Your task to perform on an android device: toggle improve location accuracy Image 0: 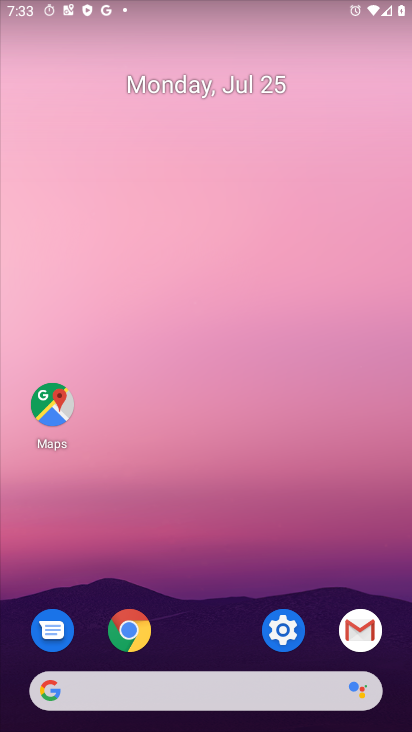
Step 0: click (278, 645)
Your task to perform on an android device: toggle improve location accuracy Image 1: 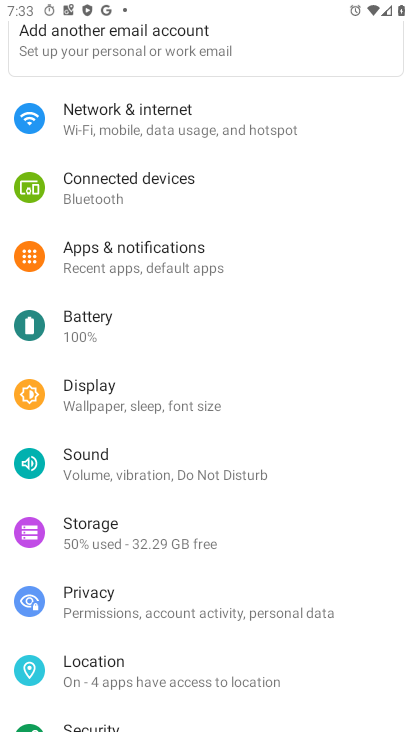
Step 1: click (117, 653)
Your task to perform on an android device: toggle improve location accuracy Image 2: 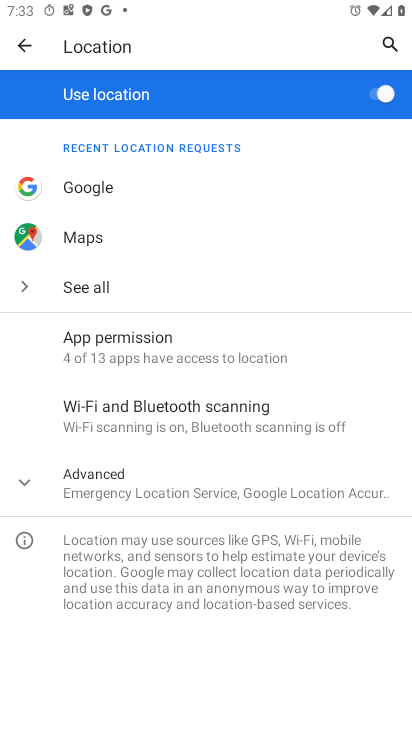
Step 2: click (16, 478)
Your task to perform on an android device: toggle improve location accuracy Image 3: 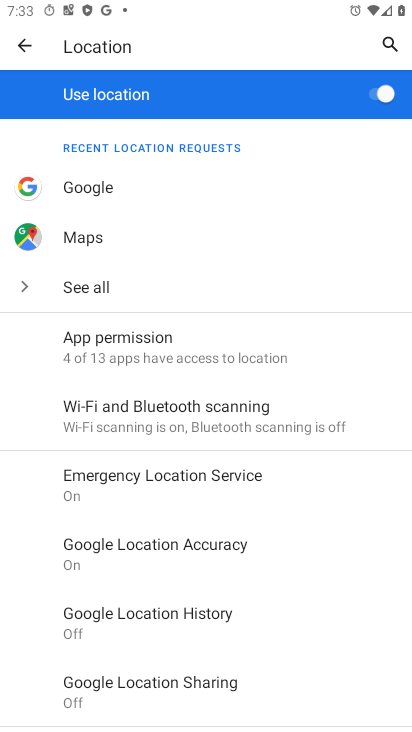
Step 3: click (178, 531)
Your task to perform on an android device: toggle improve location accuracy Image 4: 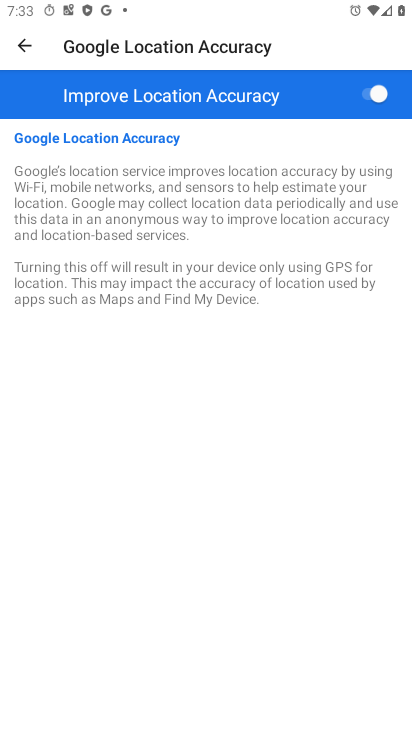
Step 4: task complete